Your task to perform on an android device: Open settings on Google Maps Image 0: 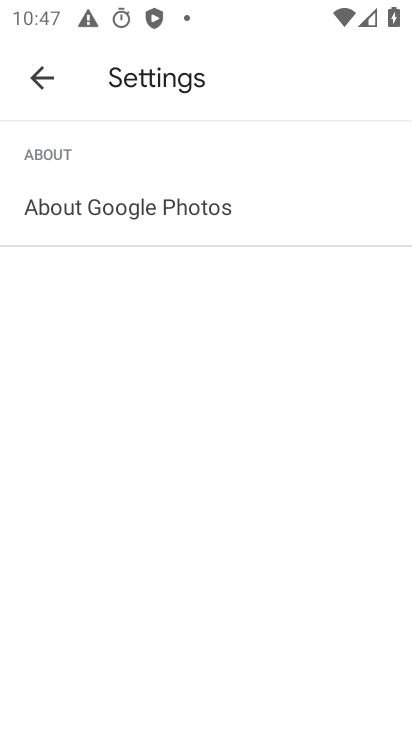
Step 0: press home button
Your task to perform on an android device: Open settings on Google Maps Image 1: 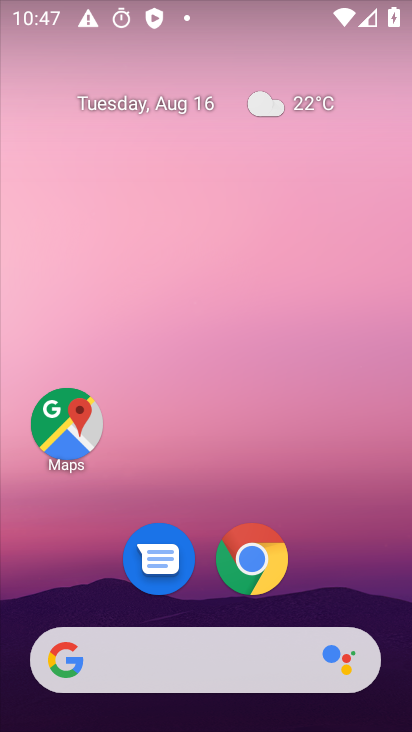
Step 1: click (77, 426)
Your task to perform on an android device: Open settings on Google Maps Image 2: 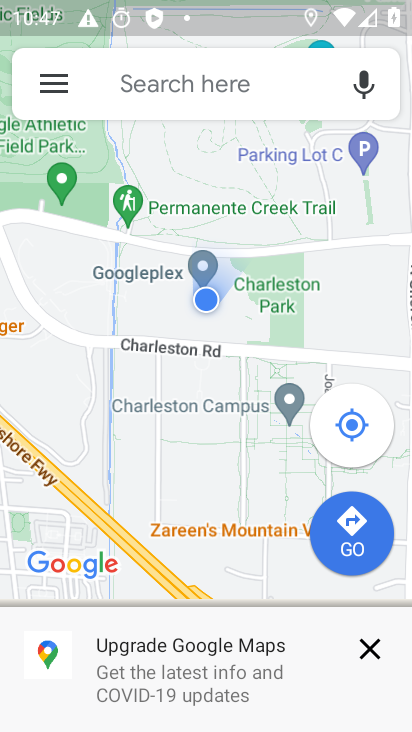
Step 2: click (57, 91)
Your task to perform on an android device: Open settings on Google Maps Image 3: 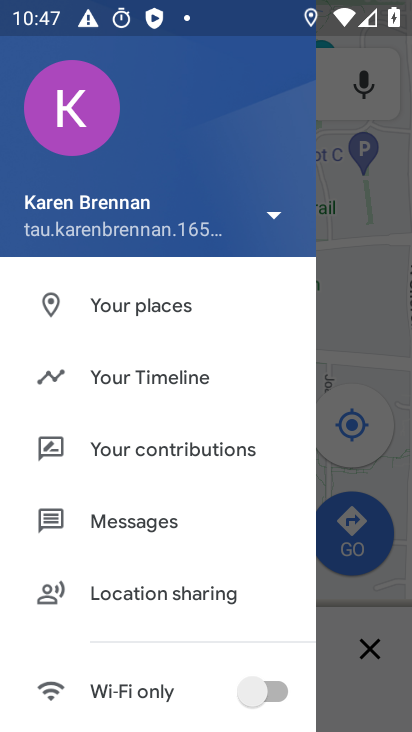
Step 3: drag from (134, 492) to (171, 313)
Your task to perform on an android device: Open settings on Google Maps Image 4: 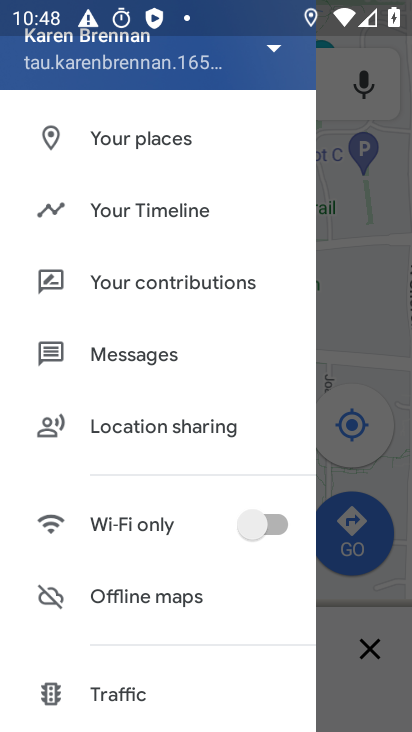
Step 4: drag from (152, 506) to (161, 347)
Your task to perform on an android device: Open settings on Google Maps Image 5: 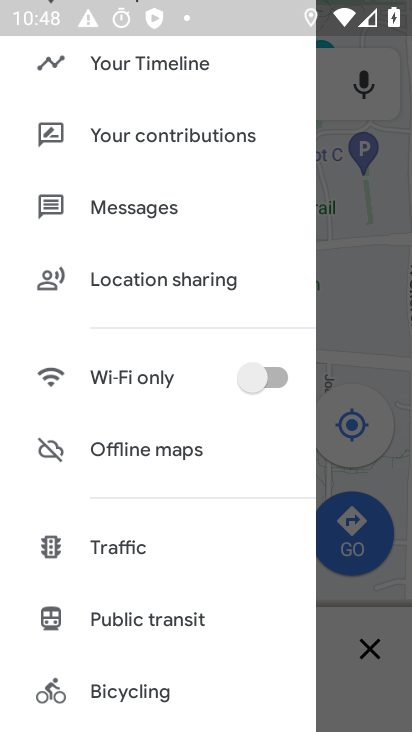
Step 5: drag from (152, 570) to (164, 293)
Your task to perform on an android device: Open settings on Google Maps Image 6: 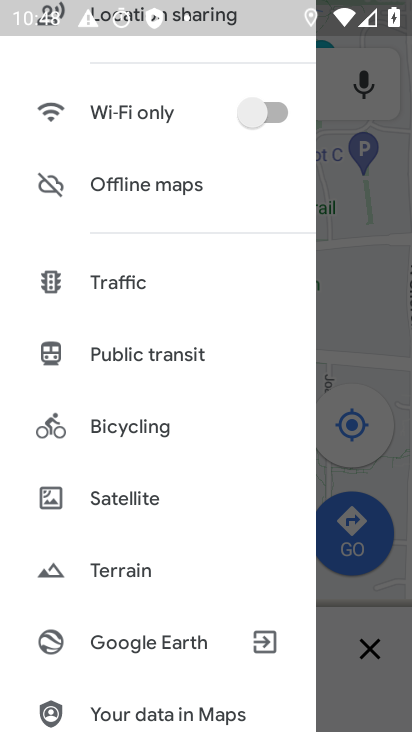
Step 6: drag from (144, 566) to (147, 331)
Your task to perform on an android device: Open settings on Google Maps Image 7: 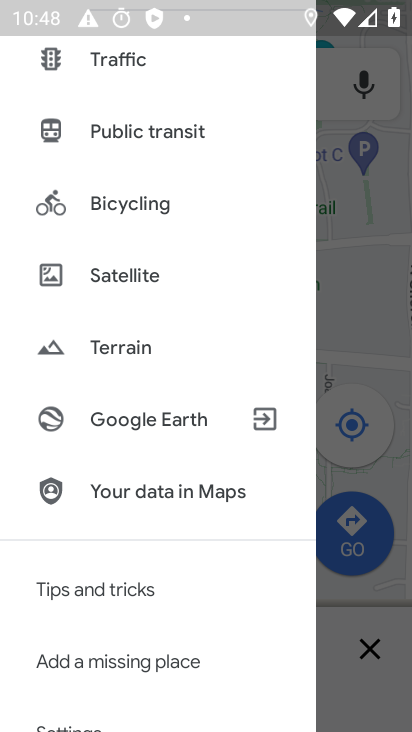
Step 7: drag from (102, 612) to (138, 215)
Your task to perform on an android device: Open settings on Google Maps Image 8: 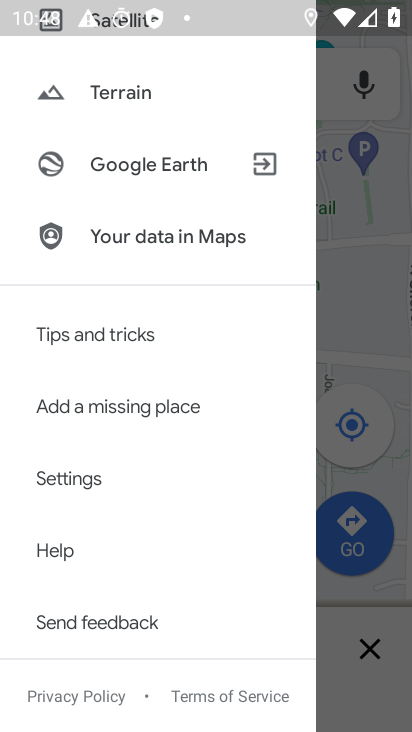
Step 8: click (61, 479)
Your task to perform on an android device: Open settings on Google Maps Image 9: 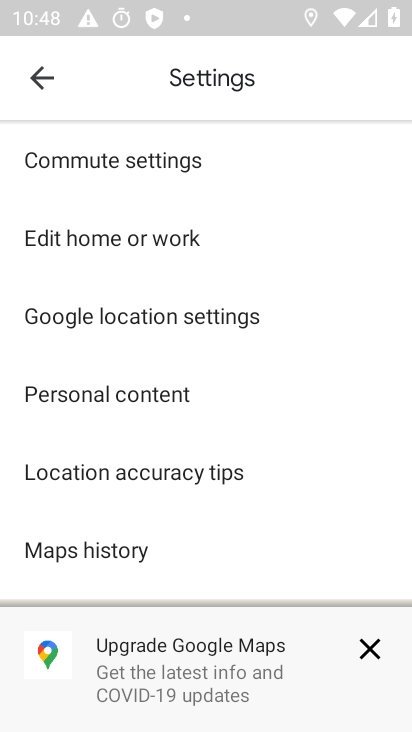
Step 9: task complete